Your task to perform on an android device: check battery use Image 0: 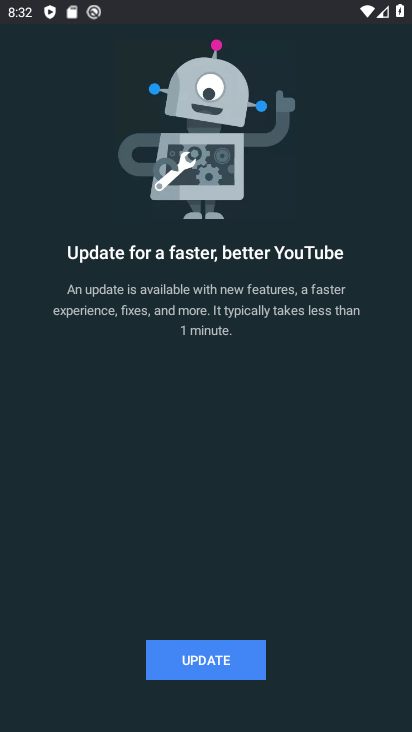
Step 0: press back button
Your task to perform on an android device: check battery use Image 1: 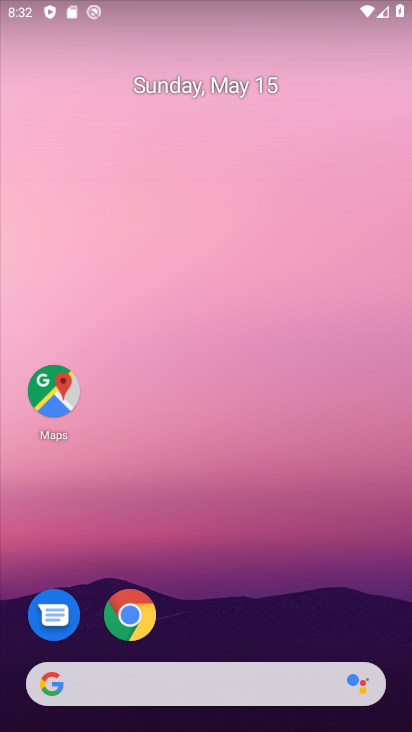
Step 1: drag from (297, 573) to (264, 4)
Your task to perform on an android device: check battery use Image 2: 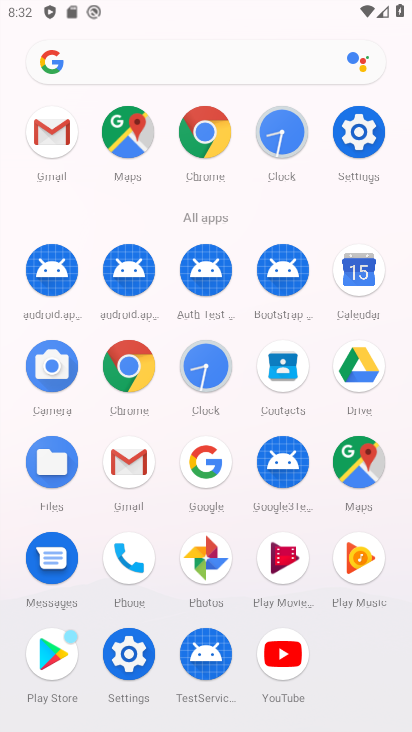
Step 2: drag from (0, 580) to (2, 333)
Your task to perform on an android device: check battery use Image 3: 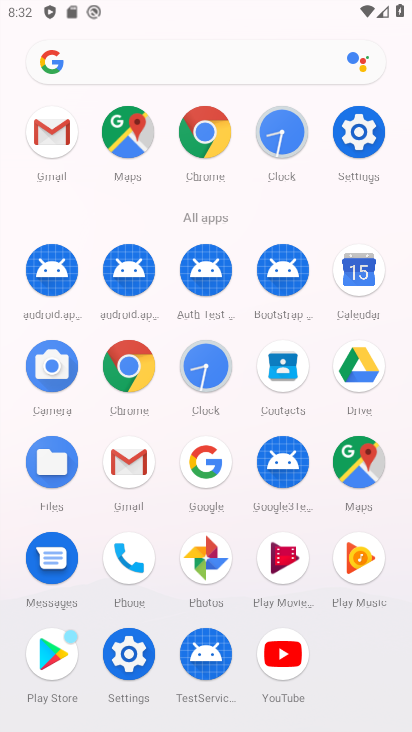
Step 3: drag from (4, 580) to (12, 310)
Your task to perform on an android device: check battery use Image 4: 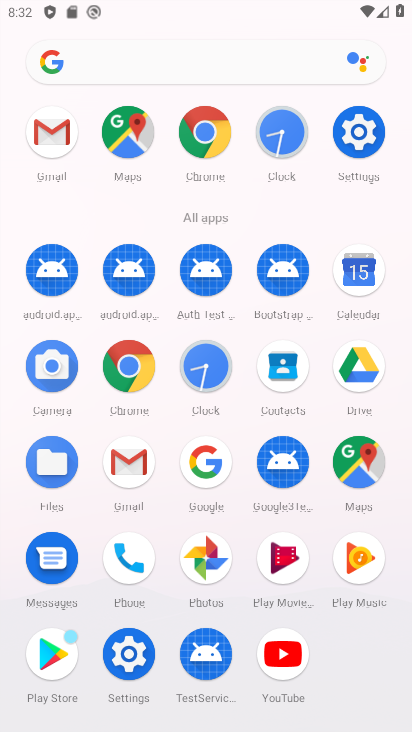
Step 4: click (125, 647)
Your task to perform on an android device: check battery use Image 5: 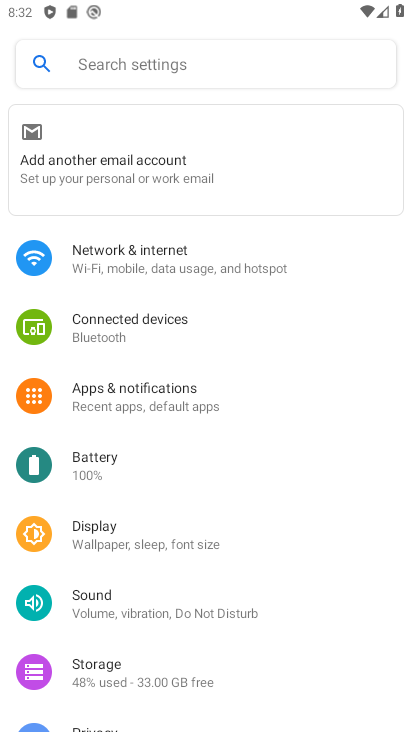
Step 5: click (136, 462)
Your task to perform on an android device: check battery use Image 6: 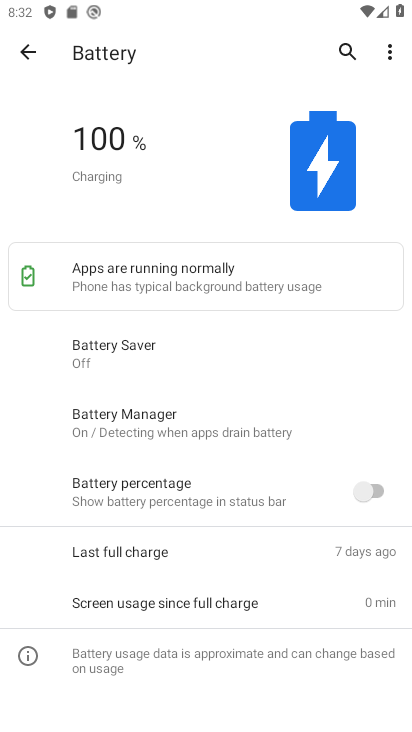
Step 6: task complete